Your task to perform on an android device: turn off sleep mode Image 0: 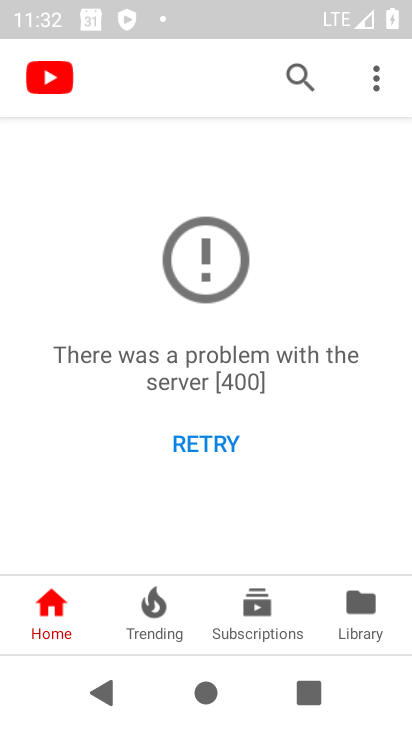
Step 0: press back button
Your task to perform on an android device: turn off sleep mode Image 1: 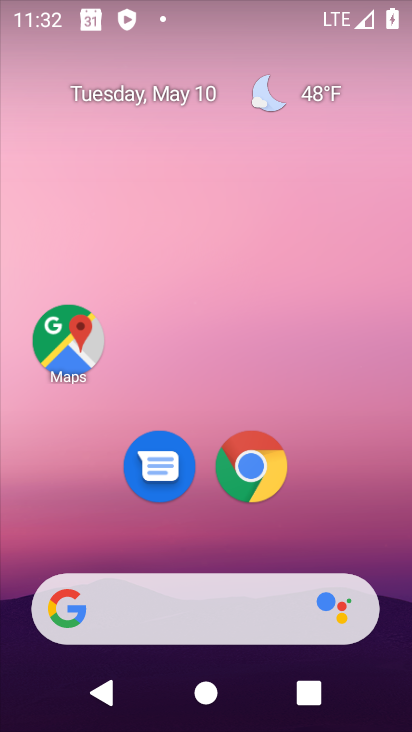
Step 1: drag from (122, 444) to (237, 21)
Your task to perform on an android device: turn off sleep mode Image 2: 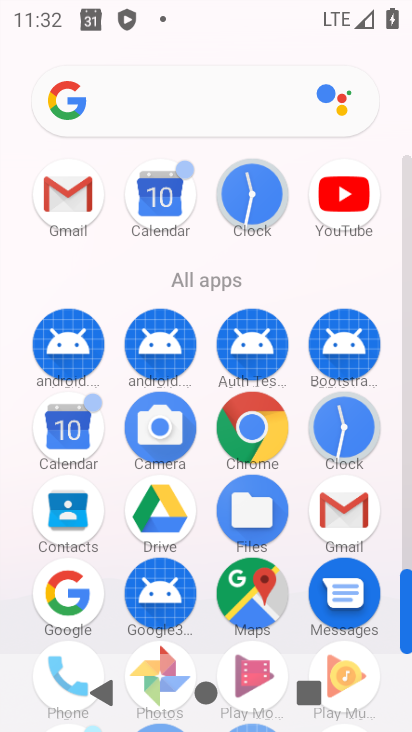
Step 2: drag from (178, 519) to (308, 42)
Your task to perform on an android device: turn off sleep mode Image 3: 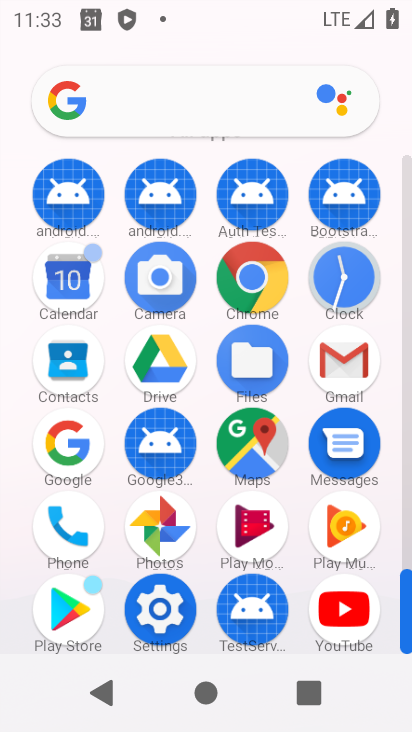
Step 3: click (157, 620)
Your task to perform on an android device: turn off sleep mode Image 4: 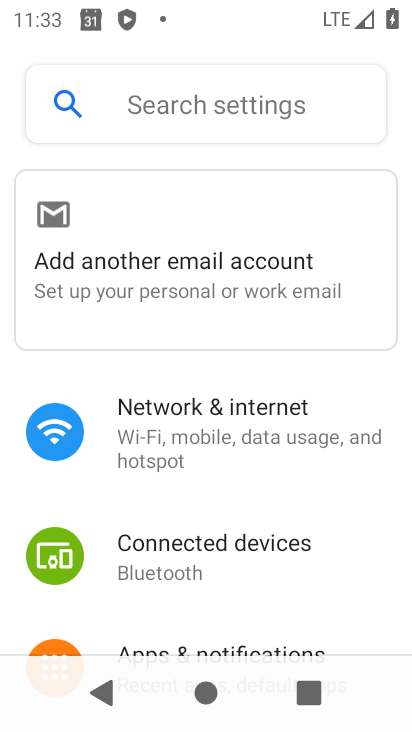
Step 4: click (197, 100)
Your task to perform on an android device: turn off sleep mode Image 5: 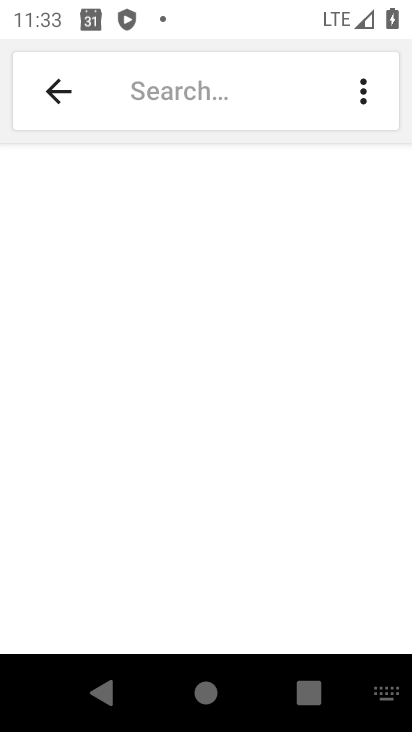
Step 5: type "sleep mode"
Your task to perform on an android device: turn off sleep mode Image 6: 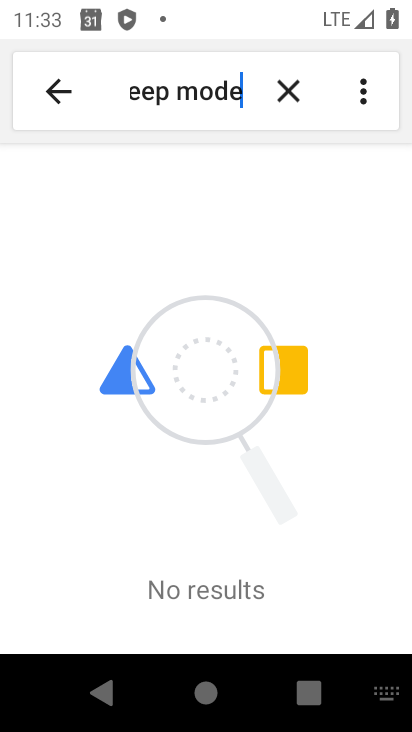
Step 6: task complete